Your task to perform on an android device: turn on translation in the chrome app Image 0: 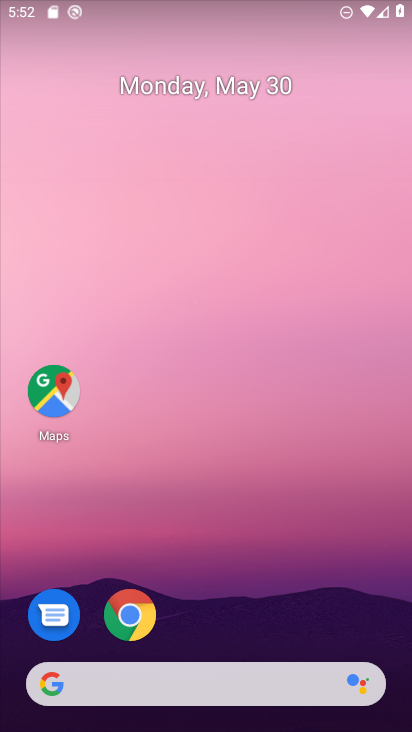
Step 0: click (141, 603)
Your task to perform on an android device: turn on translation in the chrome app Image 1: 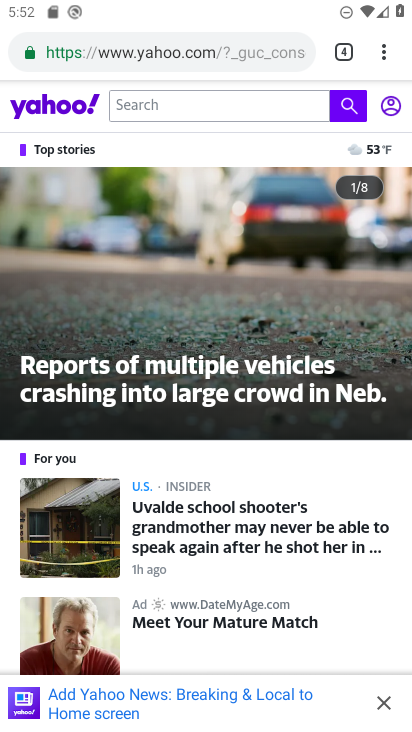
Step 1: click (383, 40)
Your task to perform on an android device: turn on translation in the chrome app Image 2: 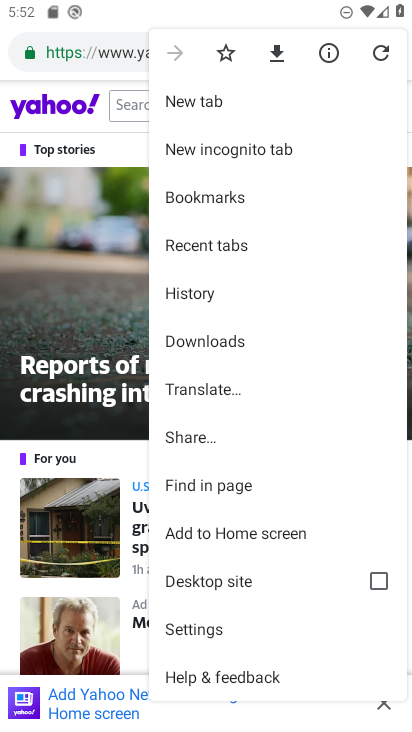
Step 2: click (196, 624)
Your task to perform on an android device: turn on translation in the chrome app Image 3: 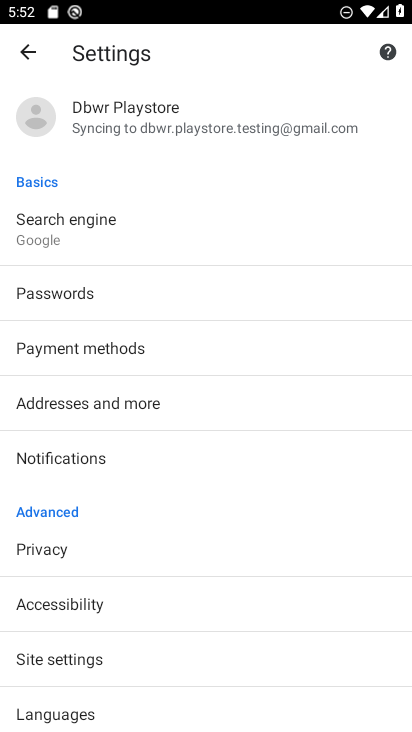
Step 3: click (67, 705)
Your task to perform on an android device: turn on translation in the chrome app Image 4: 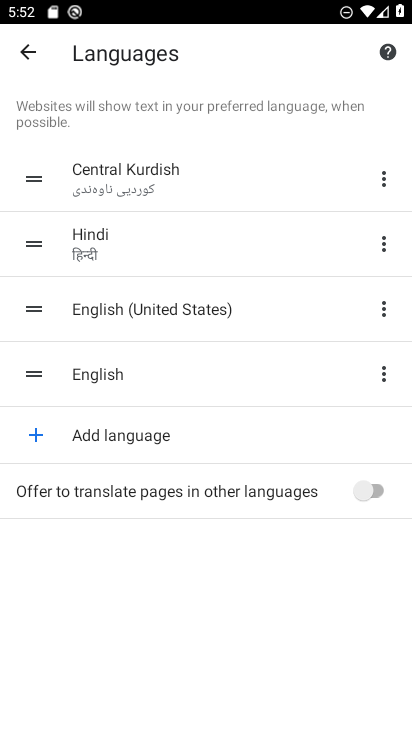
Step 4: click (387, 487)
Your task to perform on an android device: turn on translation in the chrome app Image 5: 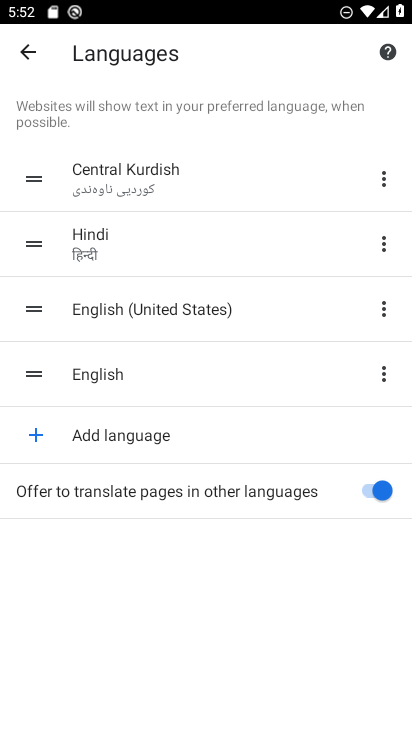
Step 5: task complete